Your task to perform on an android device: Toggle the flashlight Image 0: 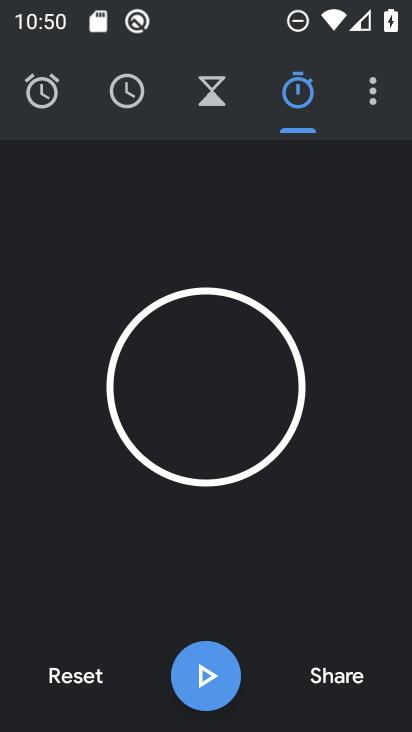
Step 0: press home button
Your task to perform on an android device: Toggle the flashlight Image 1: 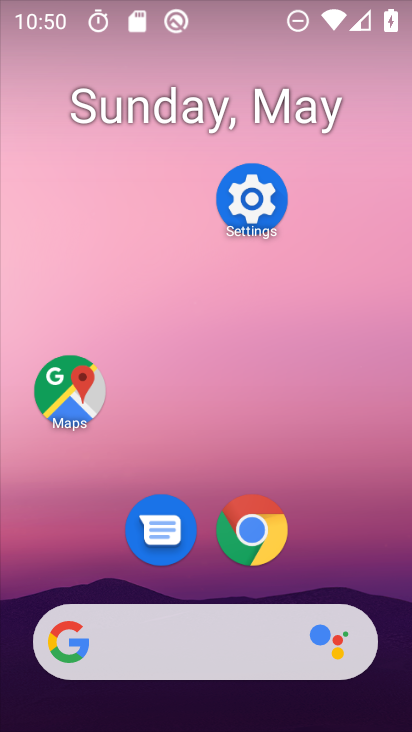
Step 1: drag from (252, 686) to (227, 43)
Your task to perform on an android device: Toggle the flashlight Image 2: 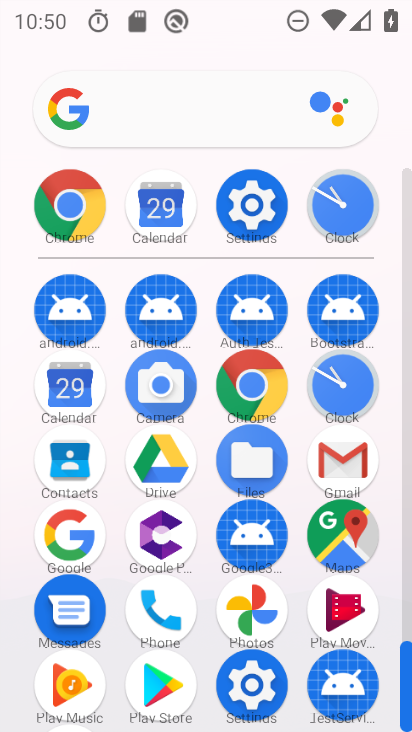
Step 2: click (239, 220)
Your task to perform on an android device: Toggle the flashlight Image 3: 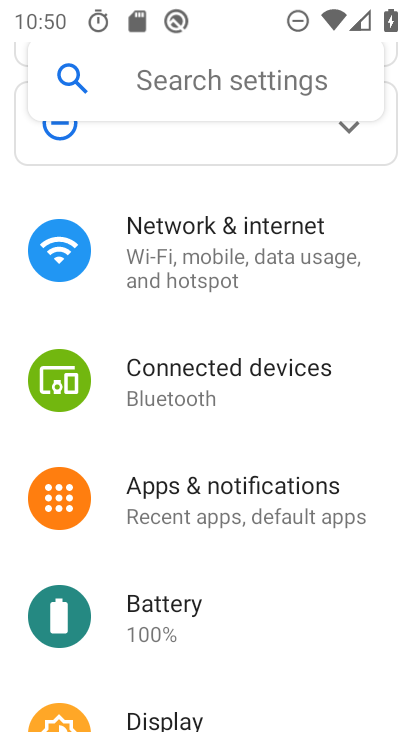
Step 3: click (153, 83)
Your task to perform on an android device: Toggle the flashlight Image 4: 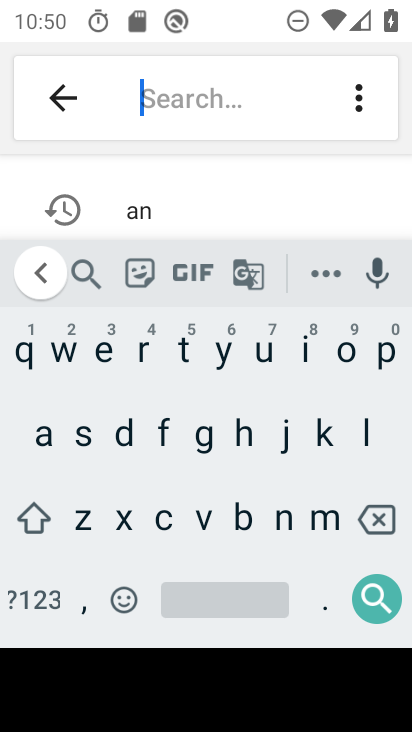
Step 4: click (165, 435)
Your task to perform on an android device: Toggle the flashlight Image 5: 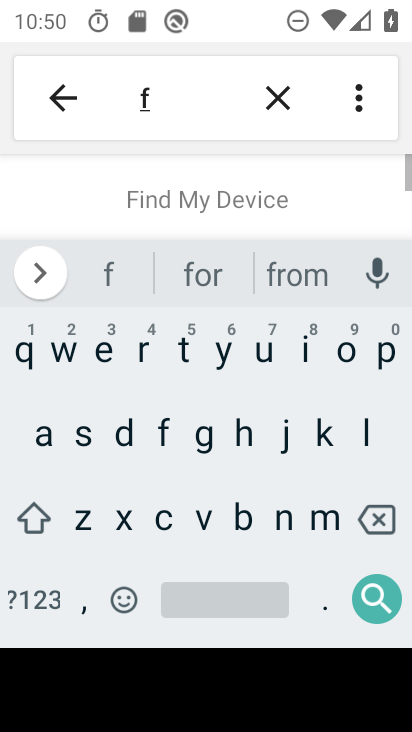
Step 5: click (365, 431)
Your task to perform on an android device: Toggle the flashlight Image 6: 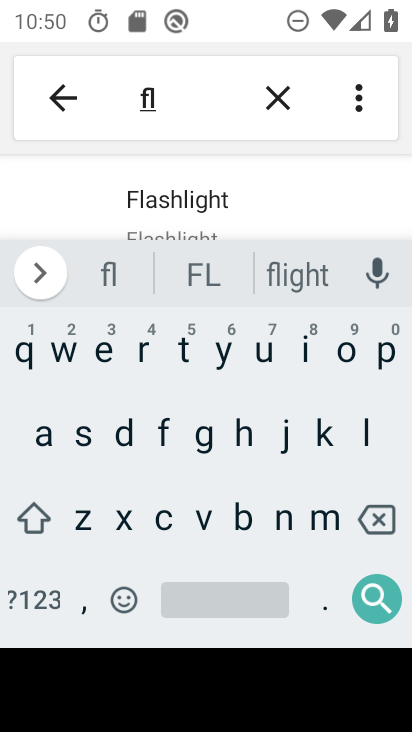
Step 6: click (175, 196)
Your task to perform on an android device: Toggle the flashlight Image 7: 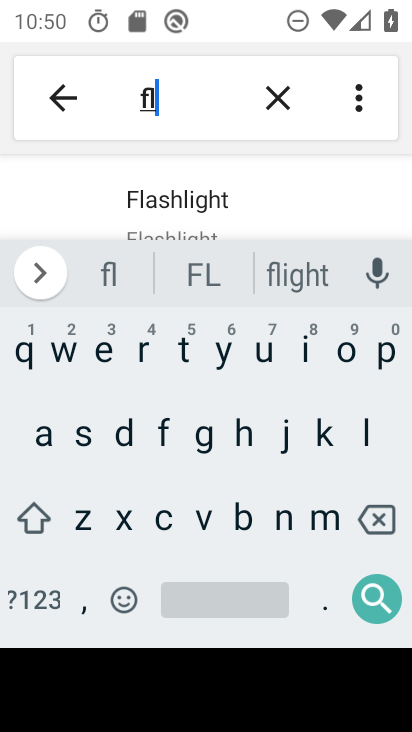
Step 7: task complete